Your task to perform on an android device: toggle notification dots Image 0: 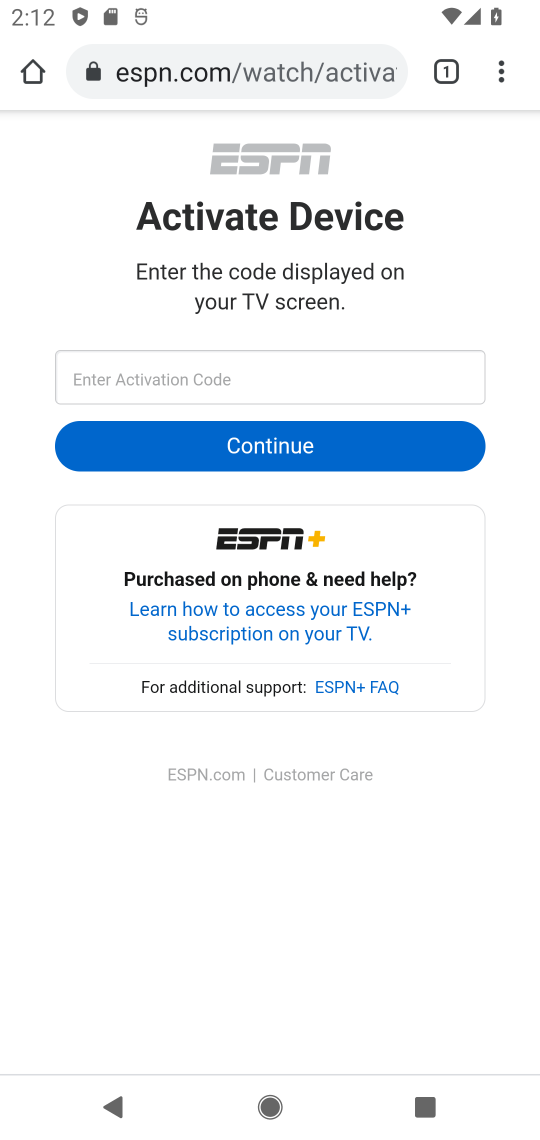
Step 0: press home button
Your task to perform on an android device: toggle notification dots Image 1: 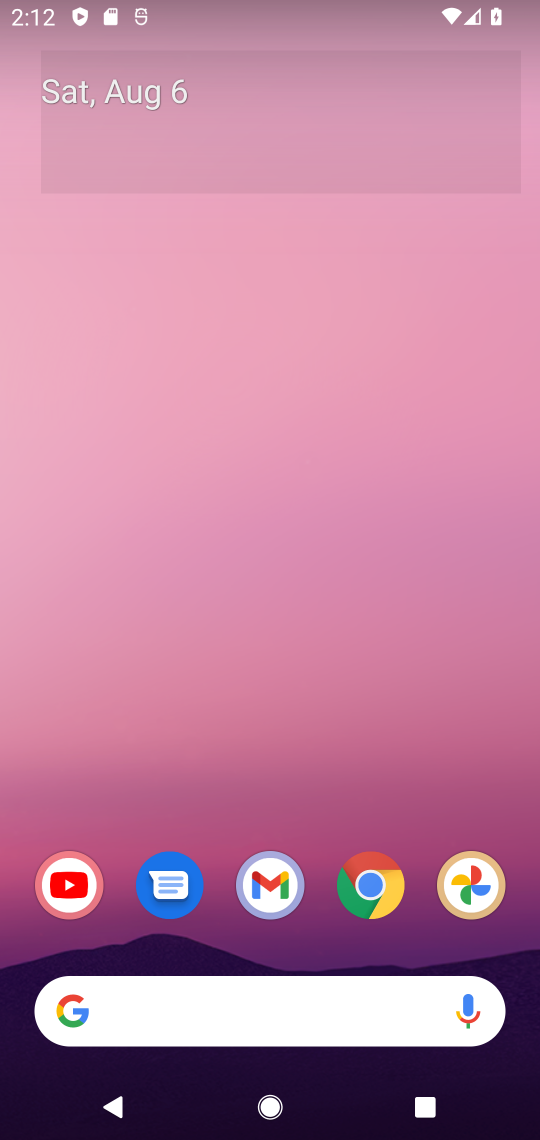
Step 1: drag from (358, 807) to (238, 14)
Your task to perform on an android device: toggle notification dots Image 2: 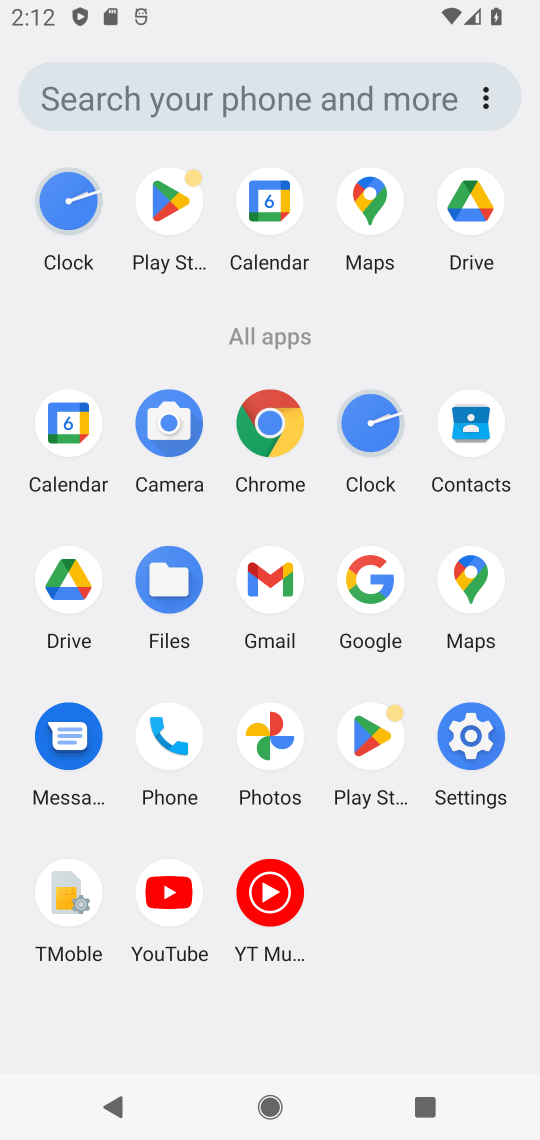
Step 2: click (460, 745)
Your task to perform on an android device: toggle notification dots Image 3: 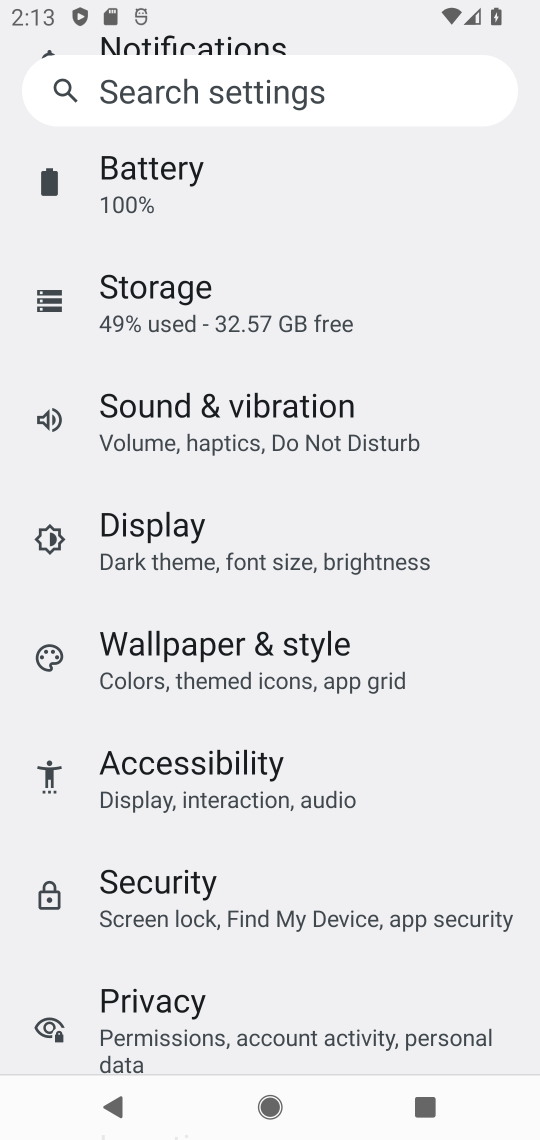
Step 3: drag from (253, 188) to (325, 747)
Your task to perform on an android device: toggle notification dots Image 4: 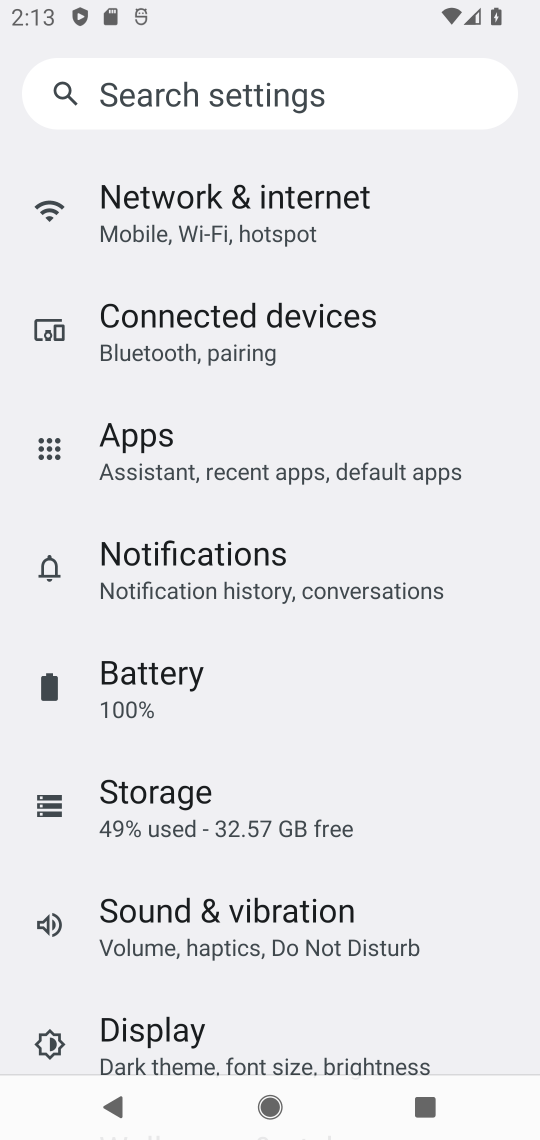
Step 4: click (242, 564)
Your task to perform on an android device: toggle notification dots Image 5: 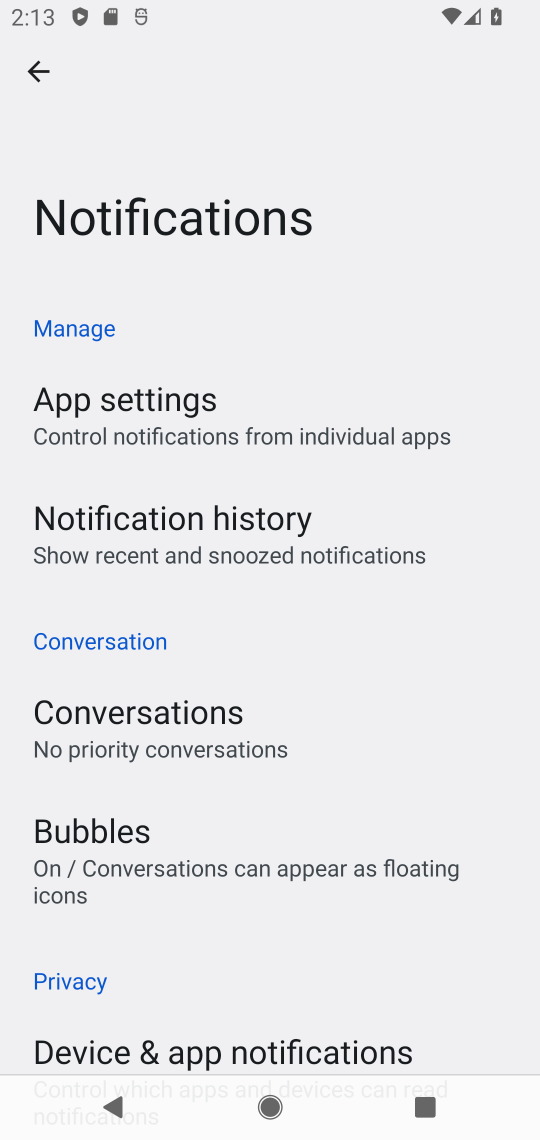
Step 5: drag from (230, 1019) to (299, 230)
Your task to perform on an android device: toggle notification dots Image 6: 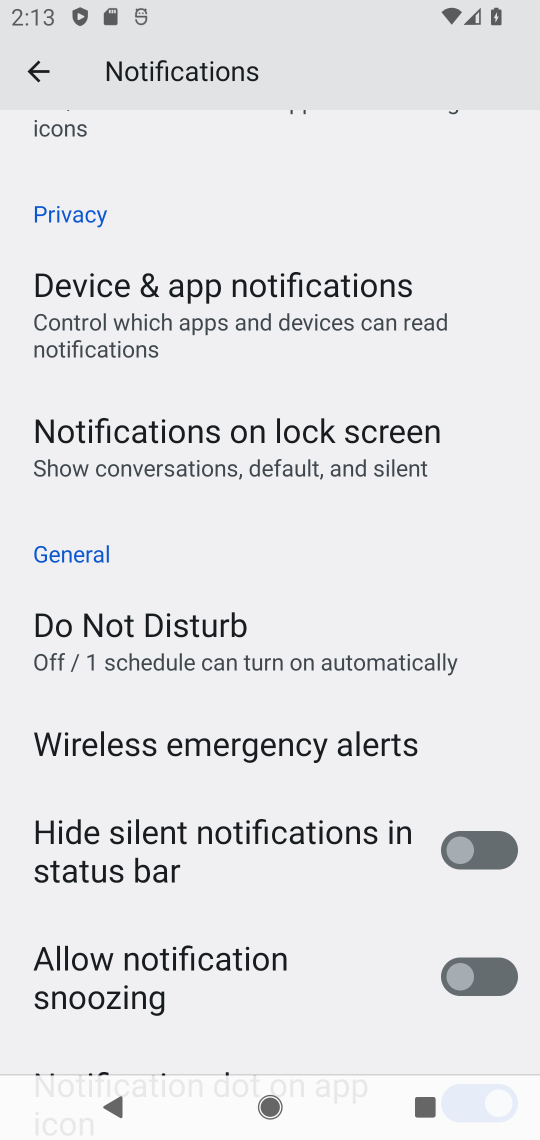
Step 6: drag from (248, 980) to (225, 220)
Your task to perform on an android device: toggle notification dots Image 7: 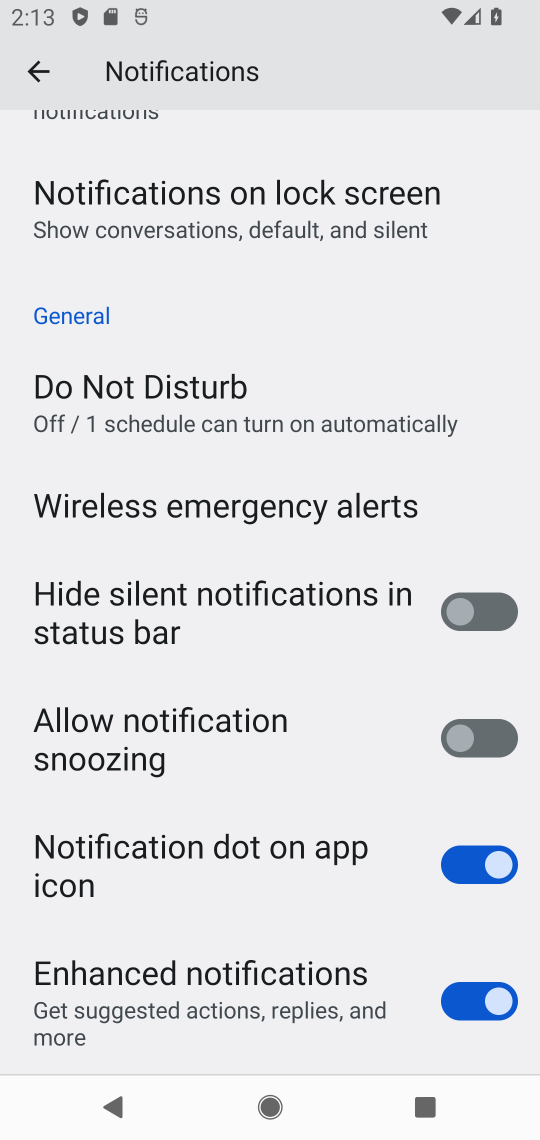
Step 7: click (285, 866)
Your task to perform on an android device: toggle notification dots Image 8: 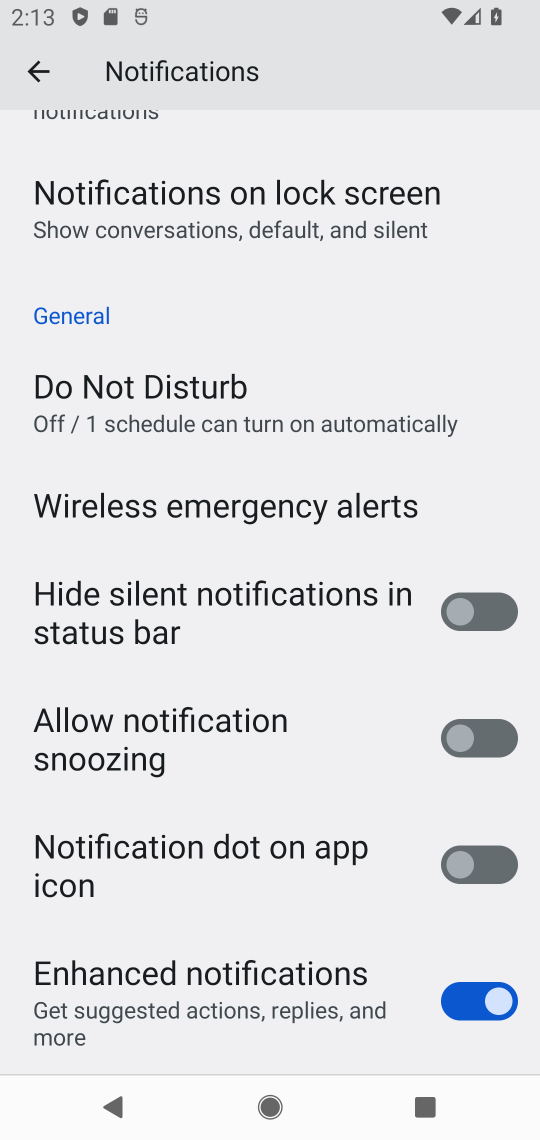
Step 8: task complete